Your task to perform on an android device: open chrome privacy settings Image 0: 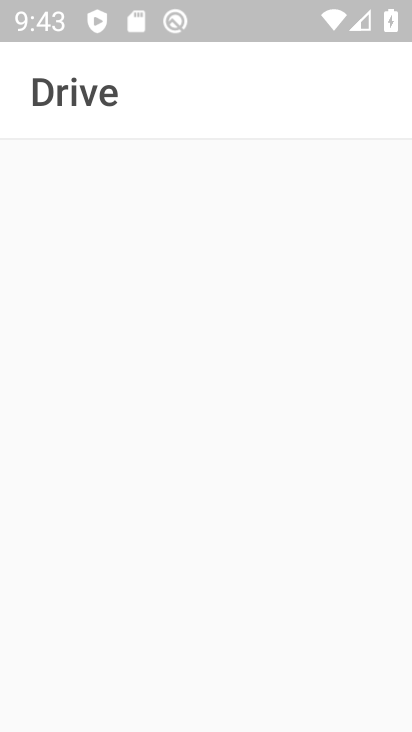
Step 0: press home button
Your task to perform on an android device: open chrome privacy settings Image 1: 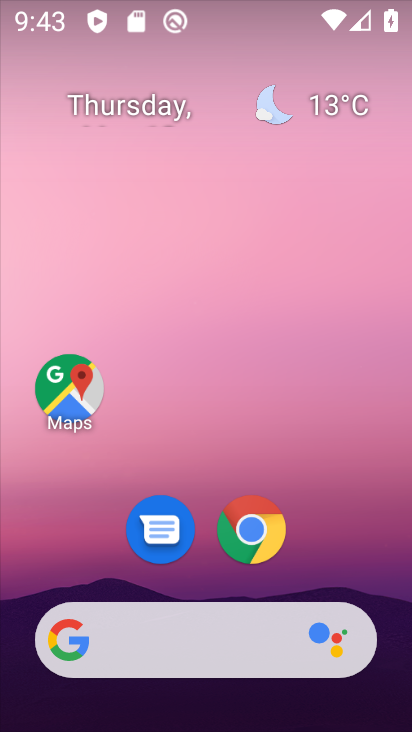
Step 1: click (252, 537)
Your task to perform on an android device: open chrome privacy settings Image 2: 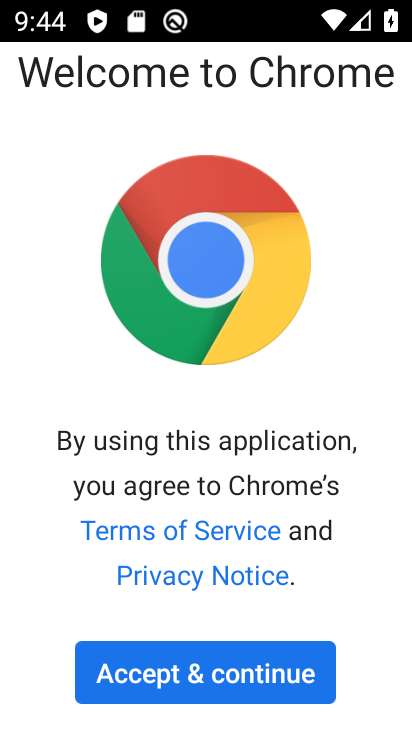
Step 2: click (213, 671)
Your task to perform on an android device: open chrome privacy settings Image 3: 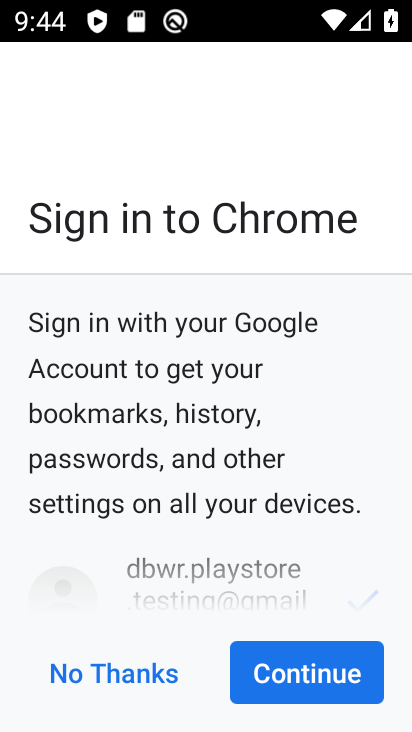
Step 3: click (271, 675)
Your task to perform on an android device: open chrome privacy settings Image 4: 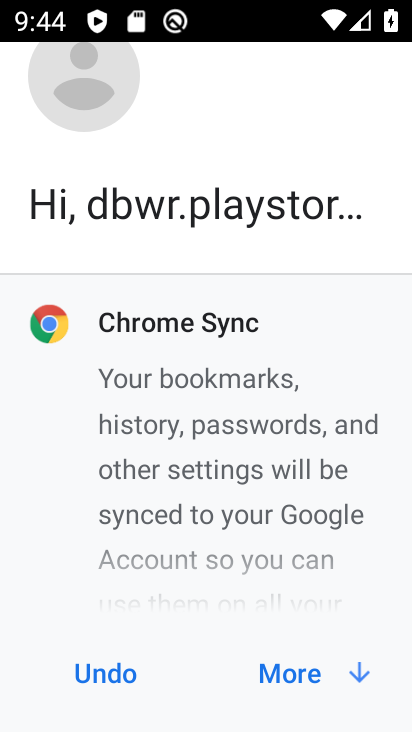
Step 4: click (271, 675)
Your task to perform on an android device: open chrome privacy settings Image 5: 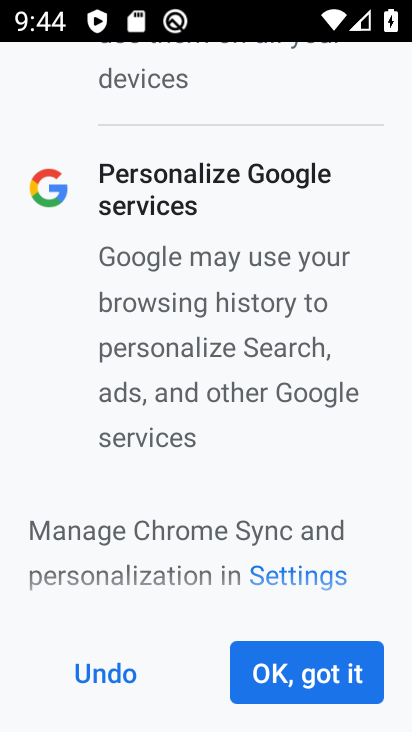
Step 5: click (271, 675)
Your task to perform on an android device: open chrome privacy settings Image 6: 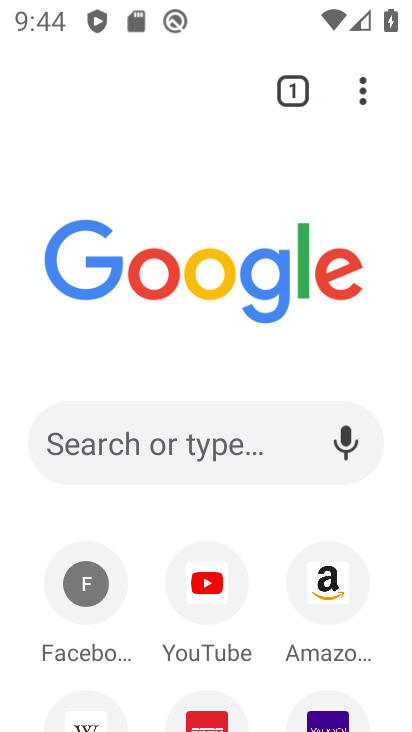
Step 6: click (358, 86)
Your task to perform on an android device: open chrome privacy settings Image 7: 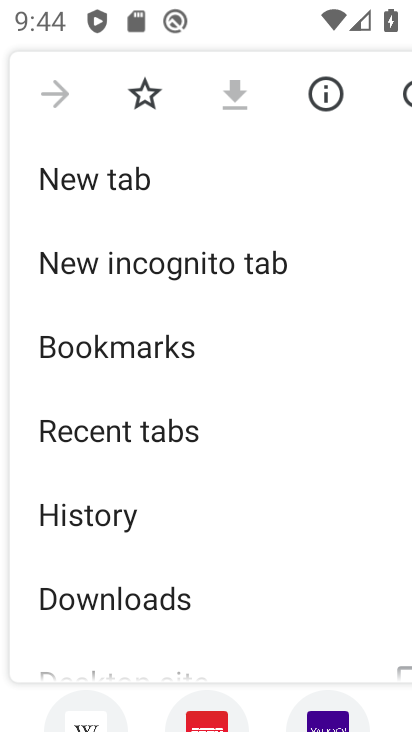
Step 7: drag from (189, 614) to (283, 216)
Your task to perform on an android device: open chrome privacy settings Image 8: 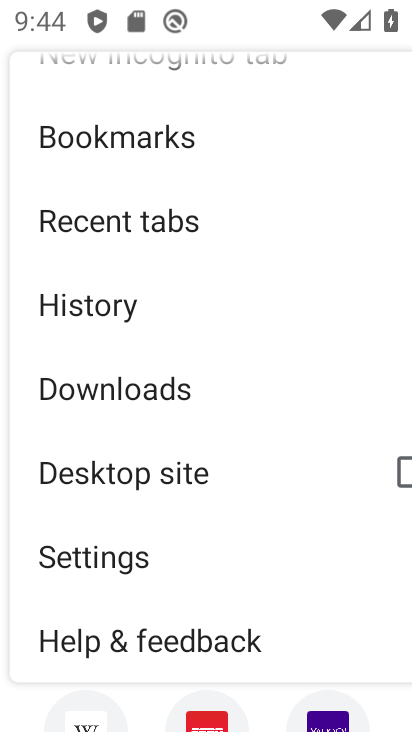
Step 8: click (138, 570)
Your task to perform on an android device: open chrome privacy settings Image 9: 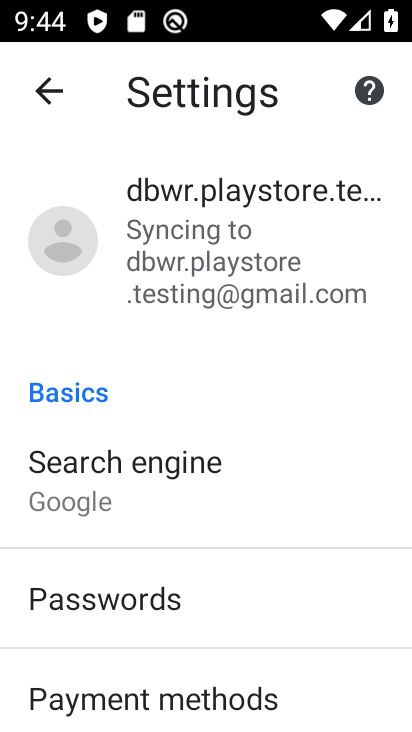
Step 9: drag from (146, 632) to (286, 135)
Your task to perform on an android device: open chrome privacy settings Image 10: 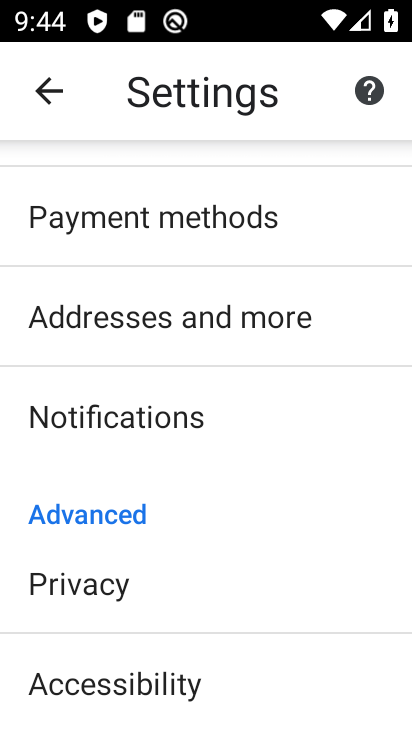
Step 10: click (104, 598)
Your task to perform on an android device: open chrome privacy settings Image 11: 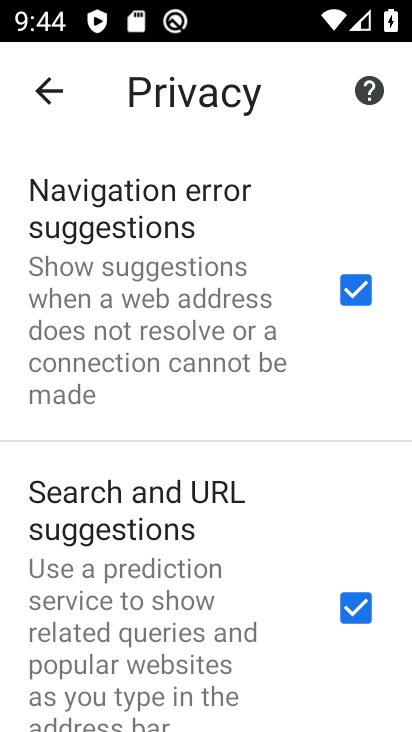
Step 11: task complete